Your task to perform on an android device: What's the weather going to be tomorrow? Image 0: 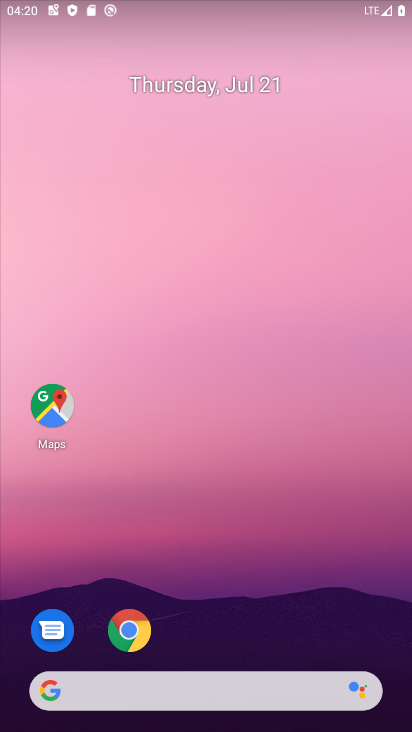
Step 0: click (129, 695)
Your task to perform on an android device: What's the weather going to be tomorrow? Image 1: 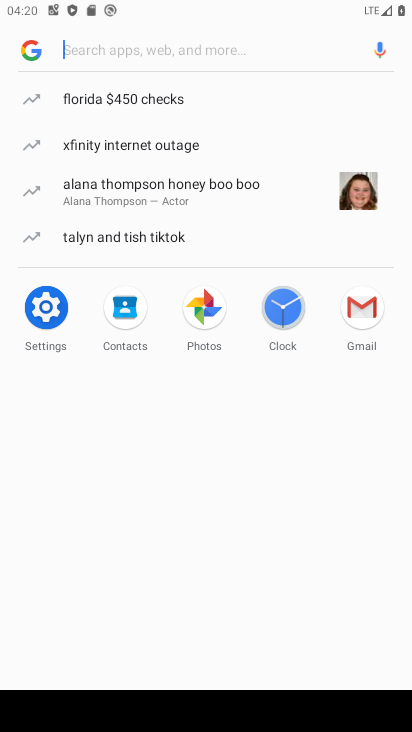
Step 1: type "weather"
Your task to perform on an android device: What's the weather going to be tomorrow? Image 2: 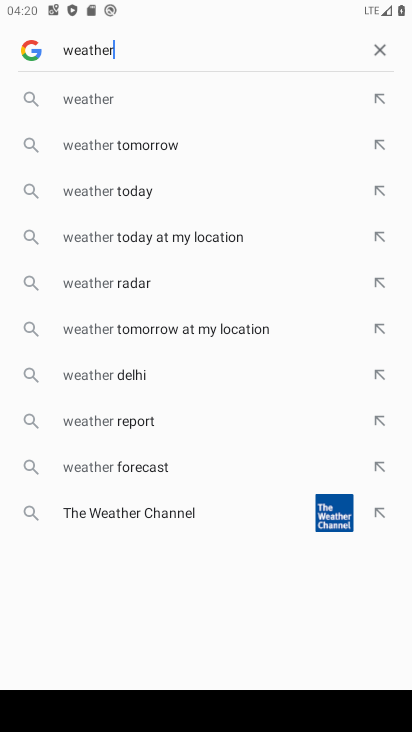
Step 2: click (134, 90)
Your task to perform on an android device: What's the weather going to be tomorrow? Image 3: 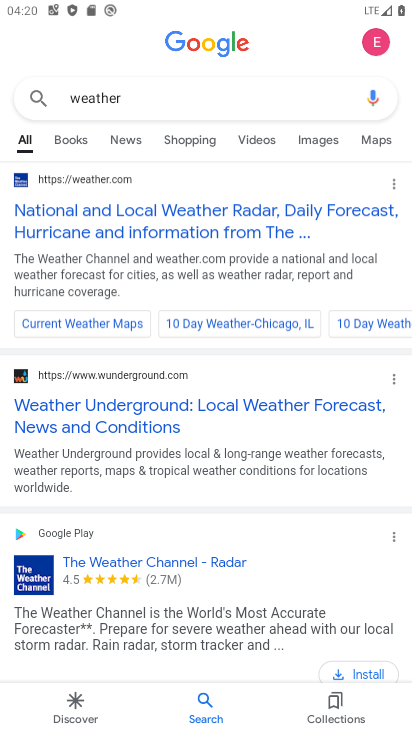
Step 3: click (123, 99)
Your task to perform on an android device: What's the weather going to be tomorrow? Image 4: 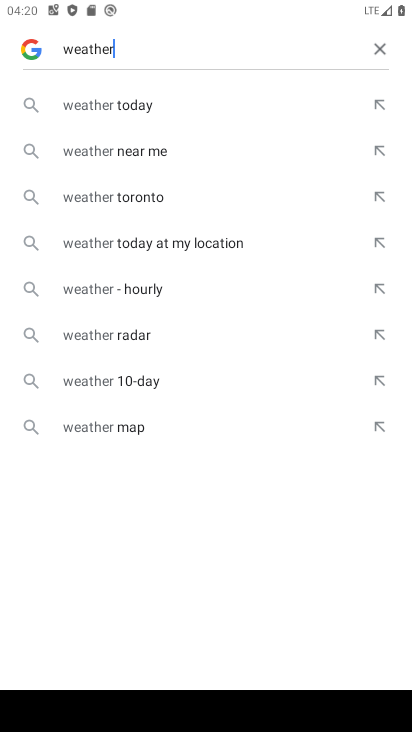
Step 4: task complete